Your task to perform on an android device: Open Youtube and go to "Your channel" Image 0: 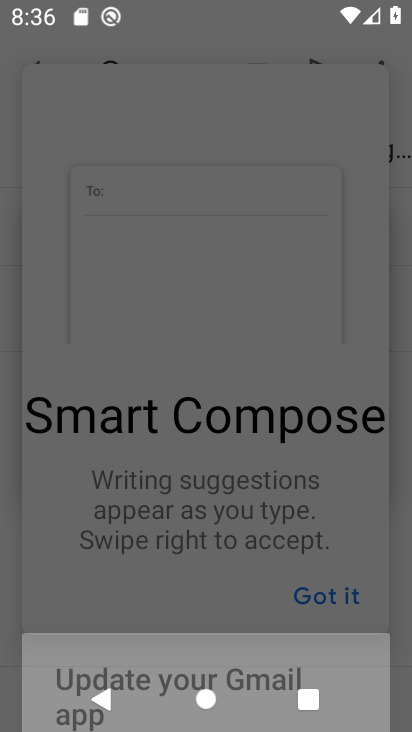
Step 0: press home button
Your task to perform on an android device: Open Youtube and go to "Your channel" Image 1: 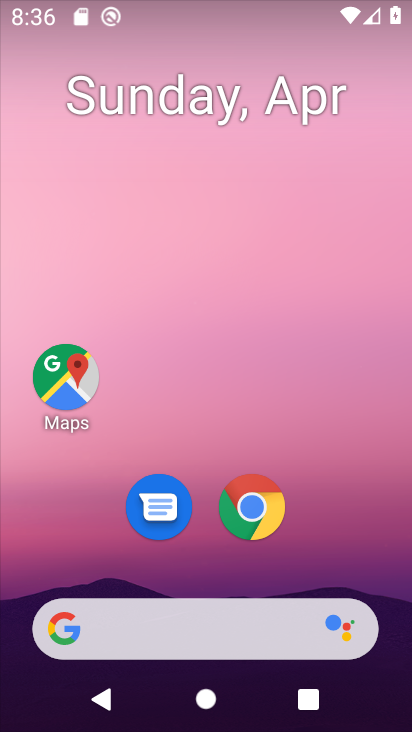
Step 1: drag from (247, 297) to (311, 45)
Your task to perform on an android device: Open Youtube and go to "Your channel" Image 2: 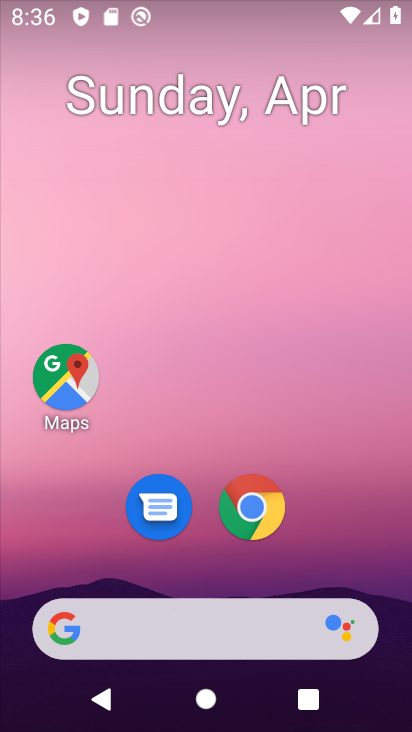
Step 2: drag from (207, 621) to (293, 48)
Your task to perform on an android device: Open Youtube and go to "Your channel" Image 3: 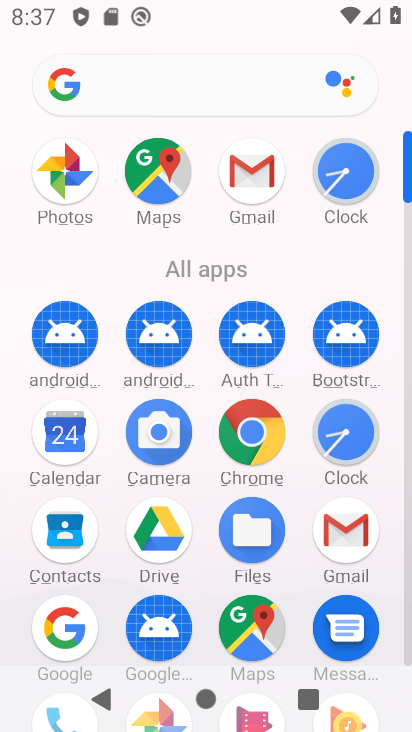
Step 3: drag from (210, 456) to (229, 46)
Your task to perform on an android device: Open Youtube and go to "Your channel" Image 4: 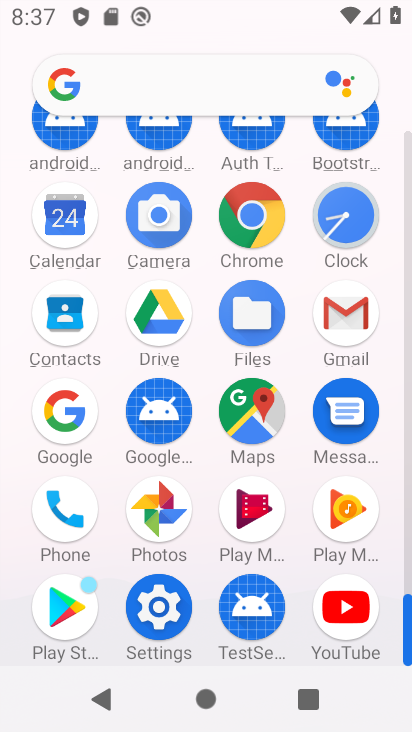
Step 4: click (330, 645)
Your task to perform on an android device: Open Youtube and go to "Your channel" Image 5: 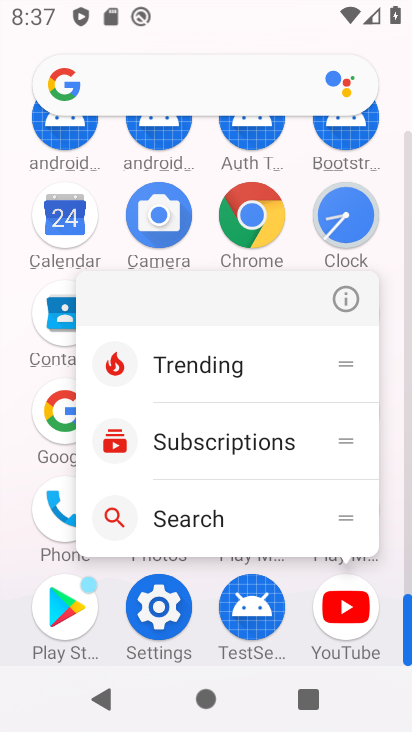
Step 5: click (331, 615)
Your task to perform on an android device: Open Youtube and go to "Your channel" Image 6: 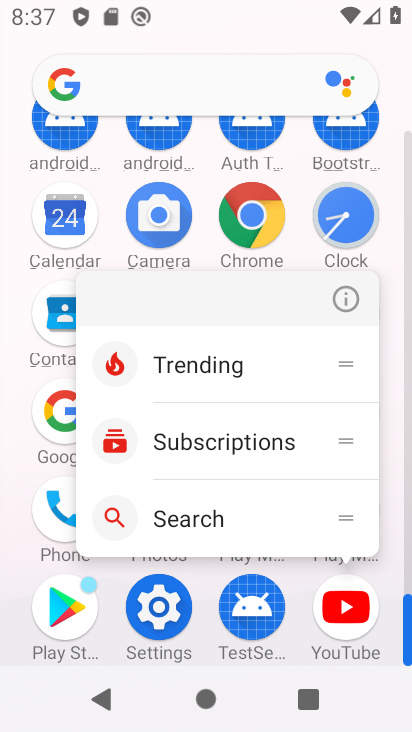
Step 6: click (331, 611)
Your task to perform on an android device: Open Youtube and go to "Your channel" Image 7: 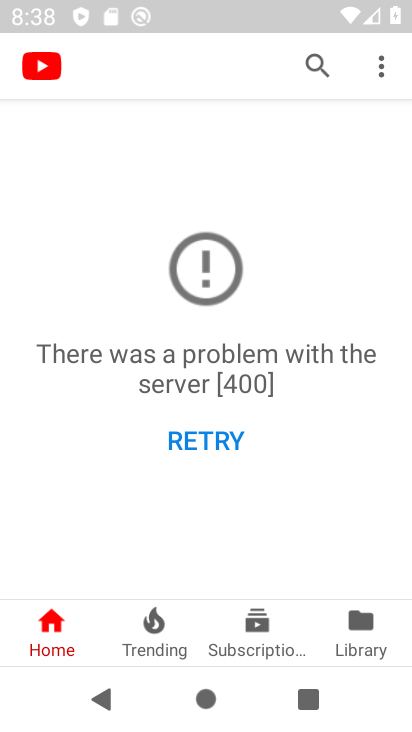
Step 7: click (357, 631)
Your task to perform on an android device: Open Youtube and go to "Your channel" Image 8: 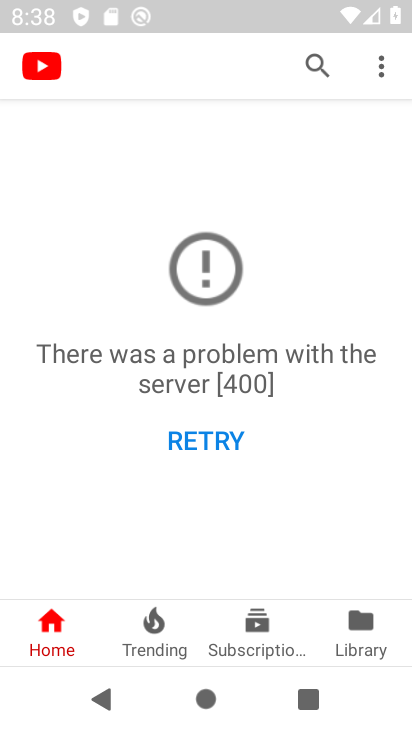
Step 8: task complete